Your task to perform on an android device: toggle notifications settings in the gmail app Image 0: 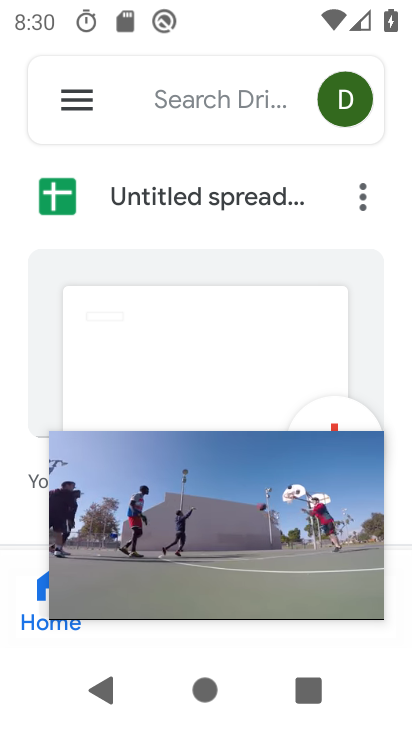
Step 0: press home button
Your task to perform on an android device: toggle notifications settings in the gmail app Image 1: 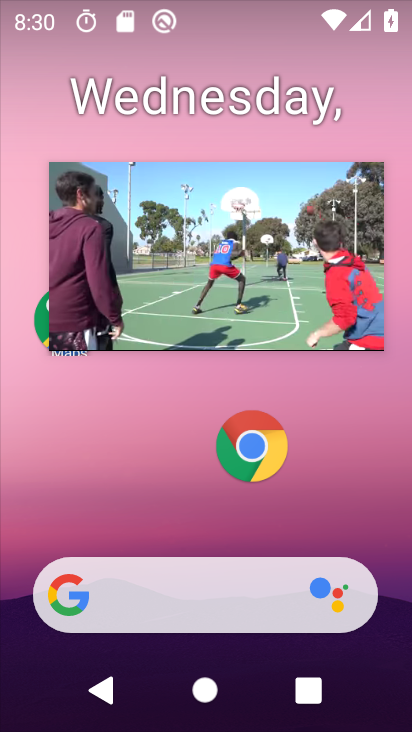
Step 1: click (292, 234)
Your task to perform on an android device: toggle notifications settings in the gmail app Image 2: 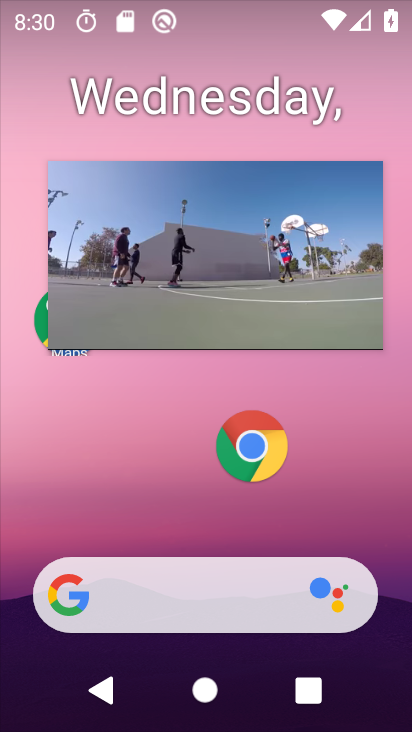
Step 2: drag from (274, 526) to (274, 63)
Your task to perform on an android device: toggle notifications settings in the gmail app Image 3: 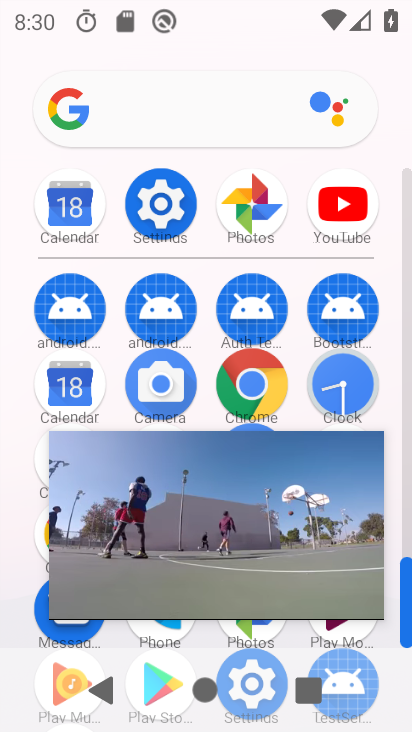
Step 3: click (364, 445)
Your task to perform on an android device: toggle notifications settings in the gmail app Image 4: 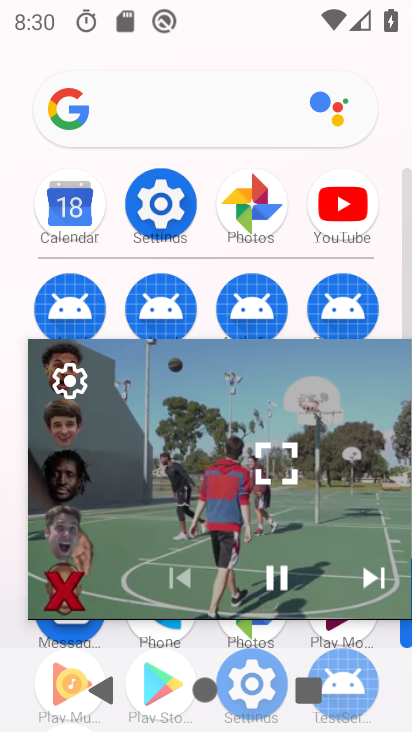
Step 4: drag from (328, 399) to (141, 415)
Your task to perform on an android device: toggle notifications settings in the gmail app Image 5: 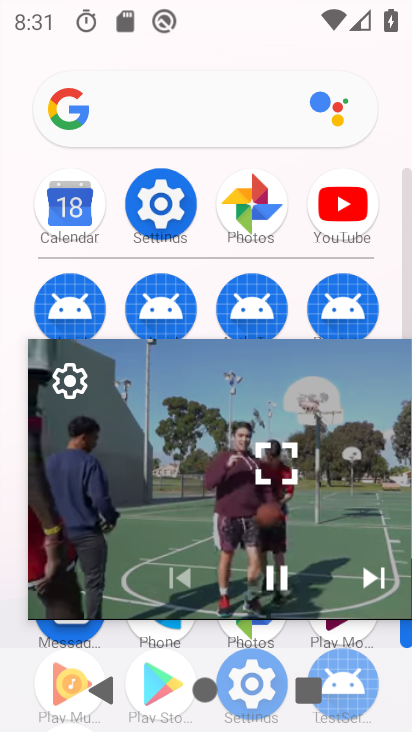
Step 5: drag from (269, 429) to (233, 730)
Your task to perform on an android device: toggle notifications settings in the gmail app Image 6: 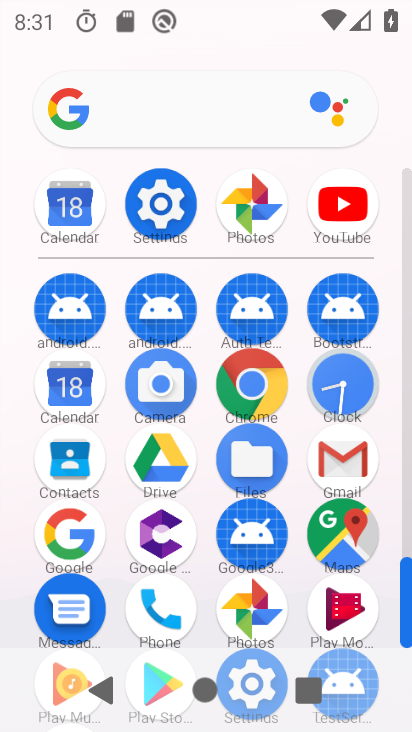
Step 6: click (346, 450)
Your task to perform on an android device: toggle notifications settings in the gmail app Image 7: 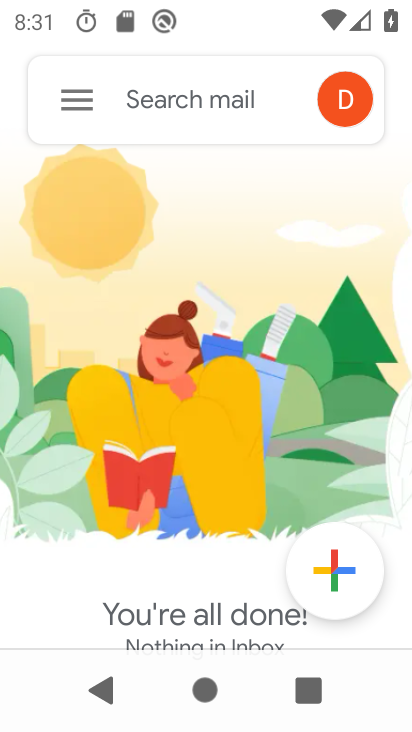
Step 7: click (71, 86)
Your task to perform on an android device: toggle notifications settings in the gmail app Image 8: 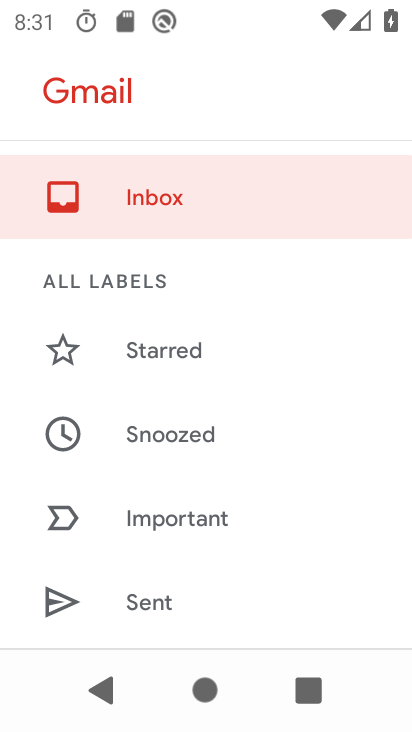
Step 8: drag from (202, 584) to (188, 115)
Your task to perform on an android device: toggle notifications settings in the gmail app Image 9: 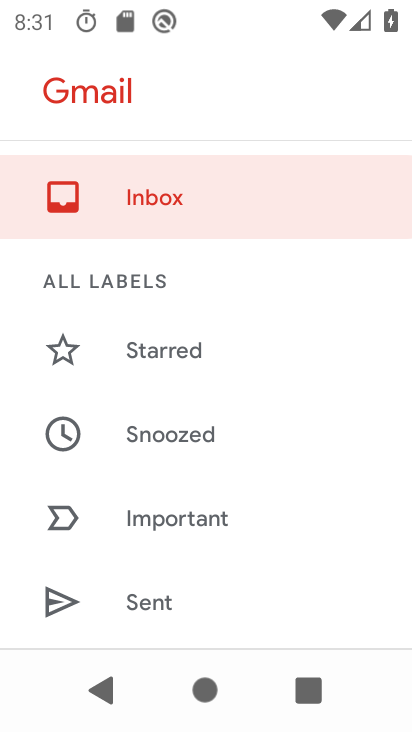
Step 9: drag from (185, 598) to (191, 140)
Your task to perform on an android device: toggle notifications settings in the gmail app Image 10: 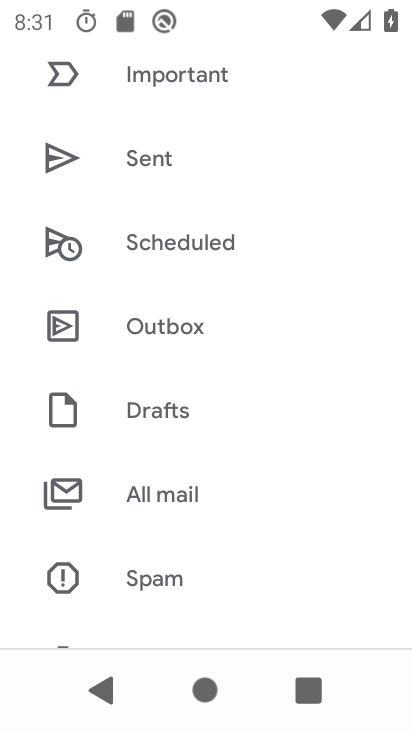
Step 10: drag from (192, 589) to (206, 91)
Your task to perform on an android device: toggle notifications settings in the gmail app Image 11: 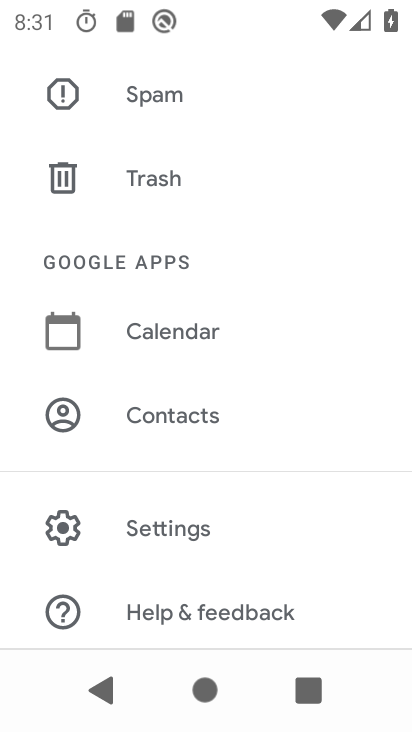
Step 11: click (225, 523)
Your task to perform on an android device: toggle notifications settings in the gmail app Image 12: 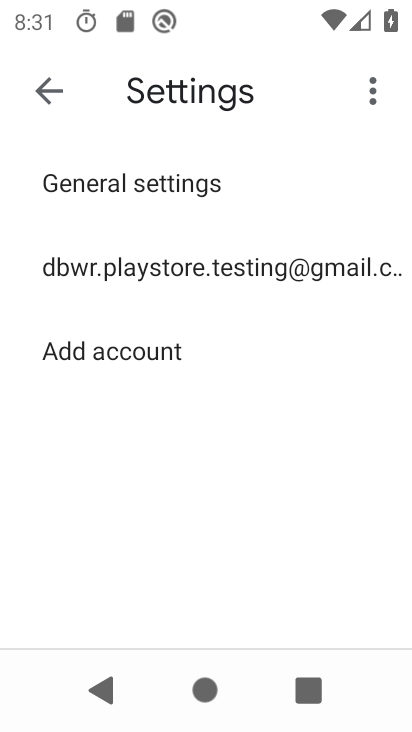
Step 12: click (226, 178)
Your task to perform on an android device: toggle notifications settings in the gmail app Image 13: 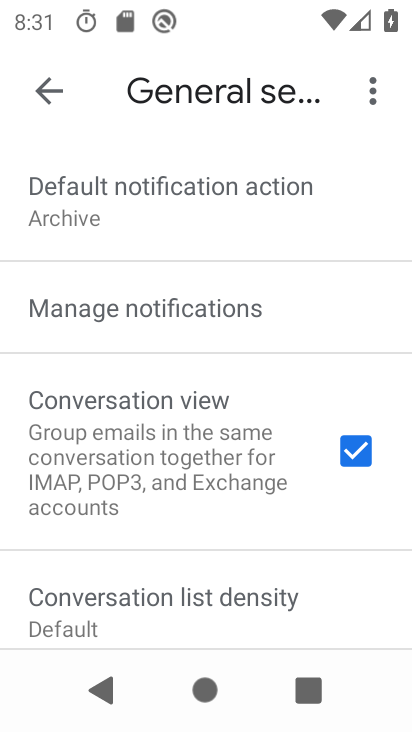
Step 13: click (269, 334)
Your task to perform on an android device: toggle notifications settings in the gmail app Image 14: 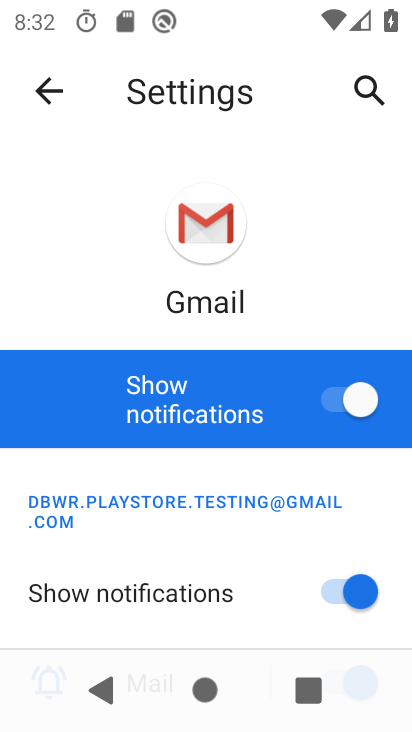
Step 14: click (335, 404)
Your task to perform on an android device: toggle notifications settings in the gmail app Image 15: 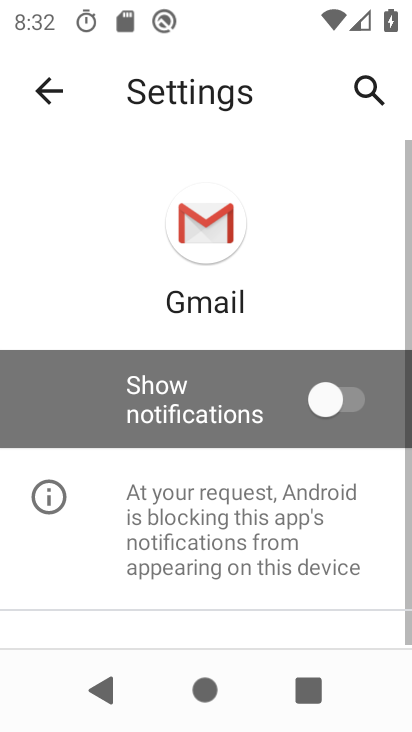
Step 15: task complete